Your task to perform on an android device: turn pop-ups on in chrome Image 0: 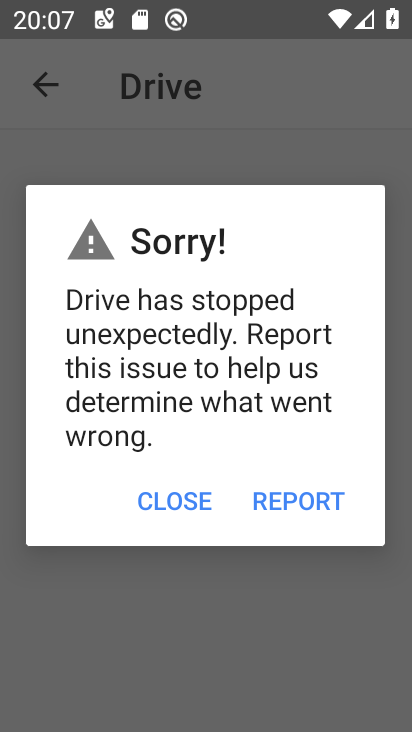
Step 0: press home button
Your task to perform on an android device: turn pop-ups on in chrome Image 1: 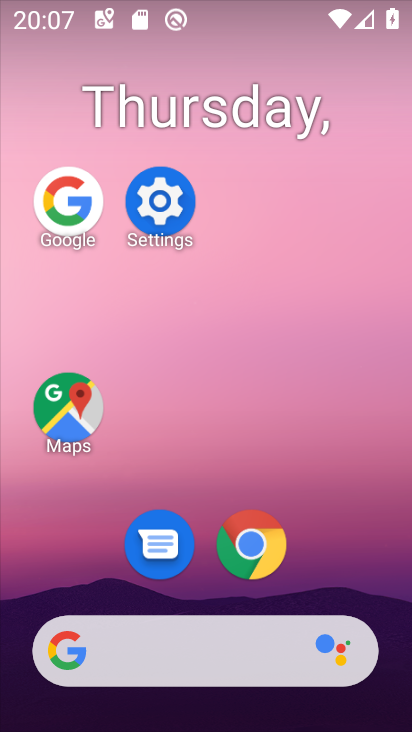
Step 1: drag from (288, 695) to (328, 1)
Your task to perform on an android device: turn pop-ups on in chrome Image 2: 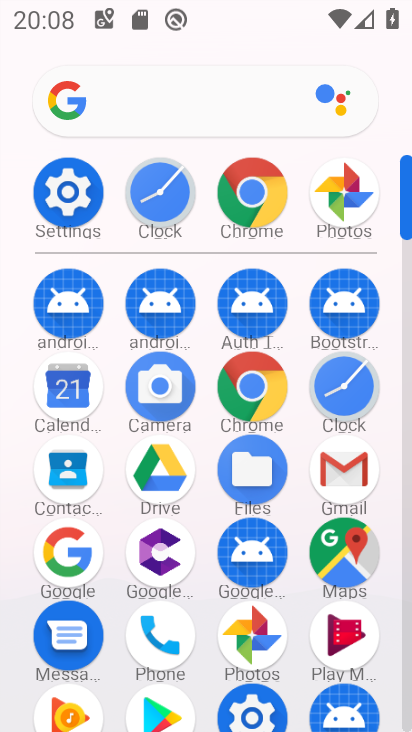
Step 2: click (254, 181)
Your task to perform on an android device: turn pop-ups on in chrome Image 3: 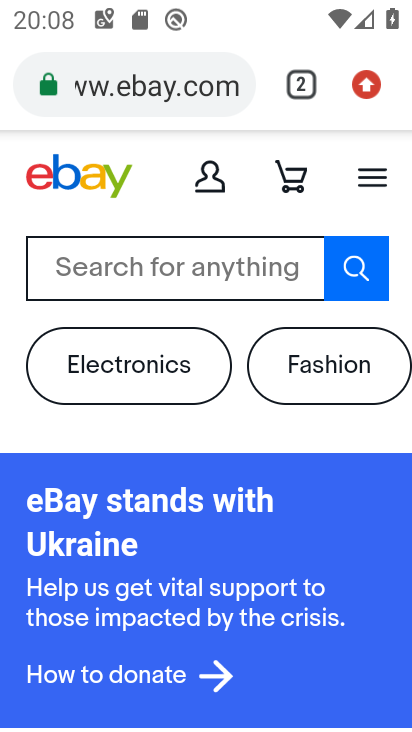
Step 3: click (363, 88)
Your task to perform on an android device: turn pop-ups on in chrome Image 4: 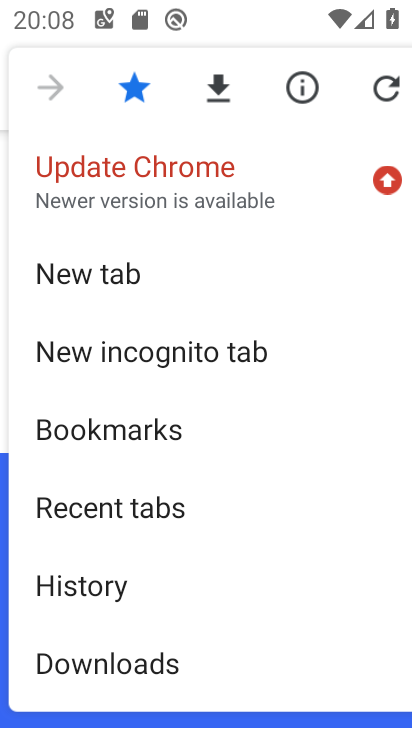
Step 4: drag from (185, 602) to (173, 283)
Your task to perform on an android device: turn pop-ups on in chrome Image 5: 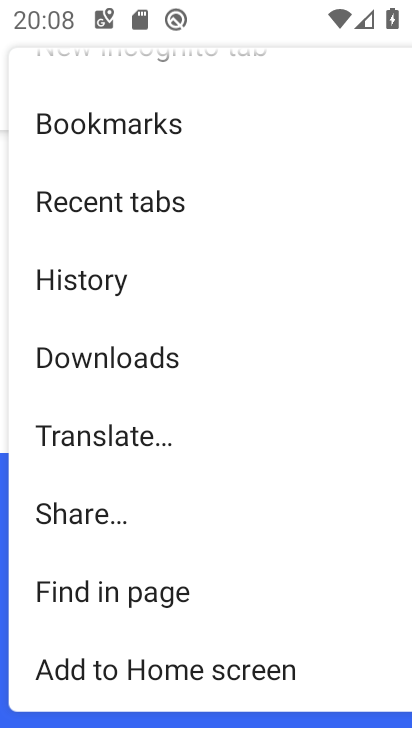
Step 5: drag from (189, 502) to (186, 420)
Your task to perform on an android device: turn pop-ups on in chrome Image 6: 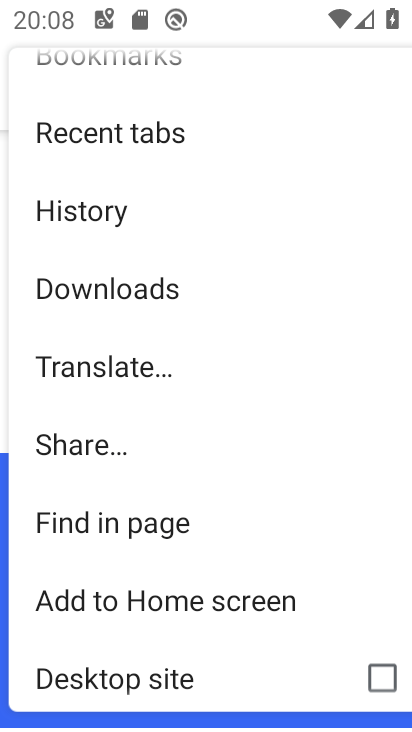
Step 6: drag from (181, 495) to (197, 317)
Your task to perform on an android device: turn pop-ups on in chrome Image 7: 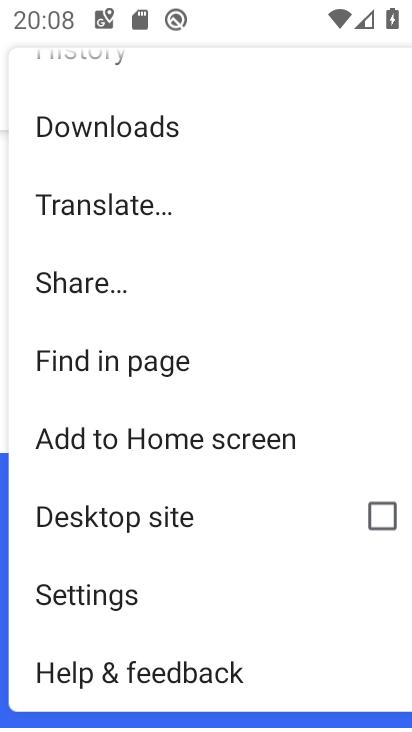
Step 7: click (117, 592)
Your task to perform on an android device: turn pop-ups on in chrome Image 8: 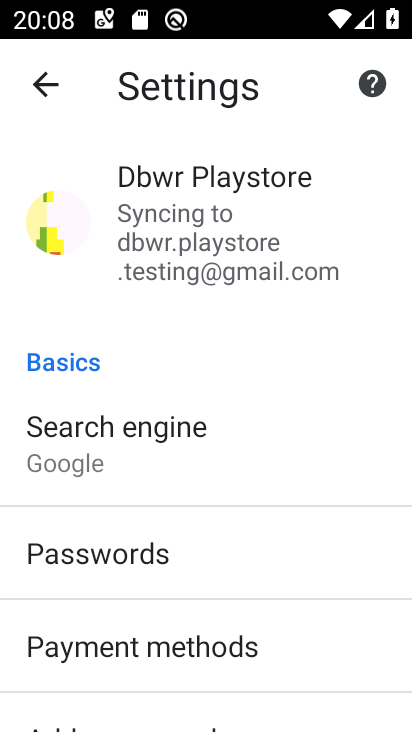
Step 8: drag from (201, 634) to (212, 42)
Your task to perform on an android device: turn pop-ups on in chrome Image 9: 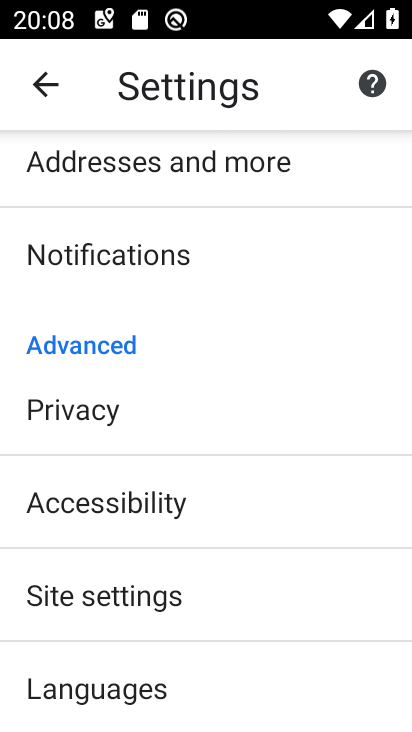
Step 9: click (91, 591)
Your task to perform on an android device: turn pop-ups on in chrome Image 10: 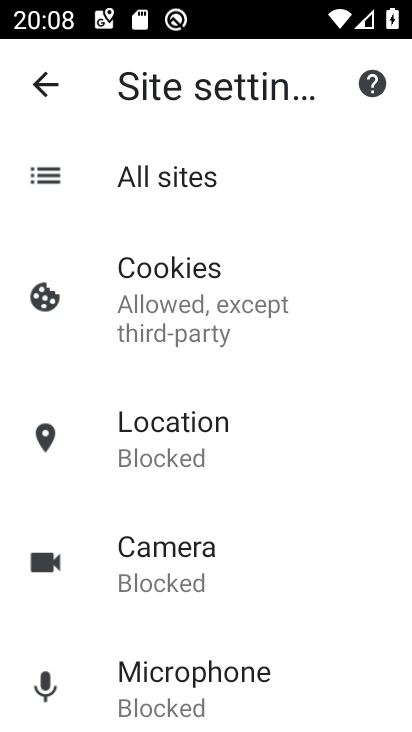
Step 10: drag from (231, 614) to (264, 199)
Your task to perform on an android device: turn pop-ups on in chrome Image 11: 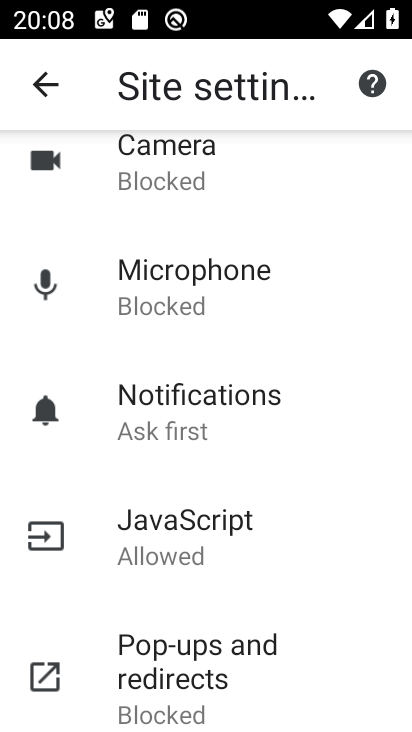
Step 11: click (168, 643)
Your task to perform on an android device: turn pop-ups on in chrome Image 12: 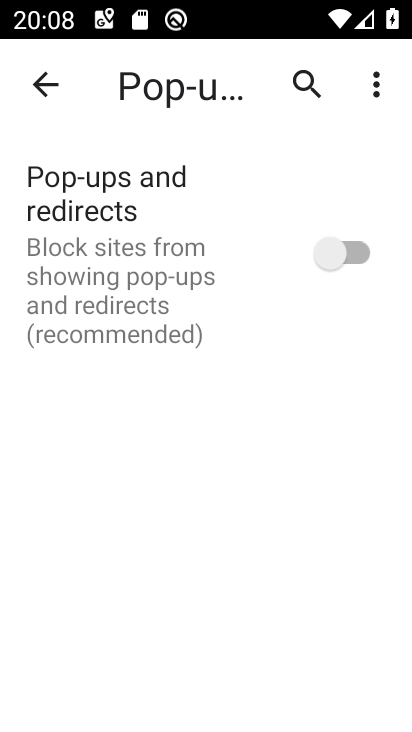
Step 12: click (343, 258)
Your task to perform on an android device: turn pop-ups on in chrome Image 13: 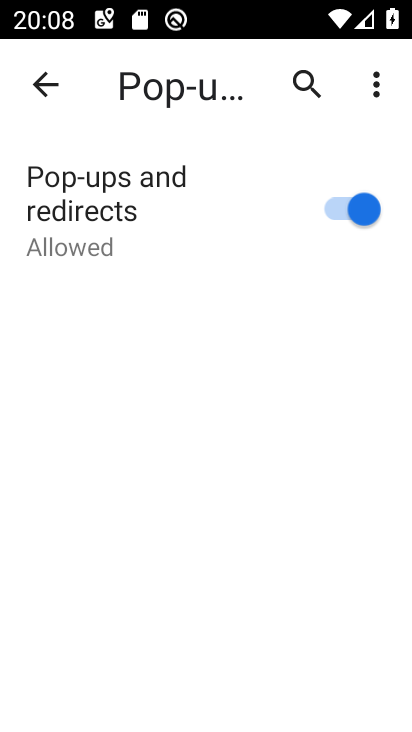
Step 13: task complete